Your task to perform on an android device: Open Google Chrome and open the bookmarks view Image 0: 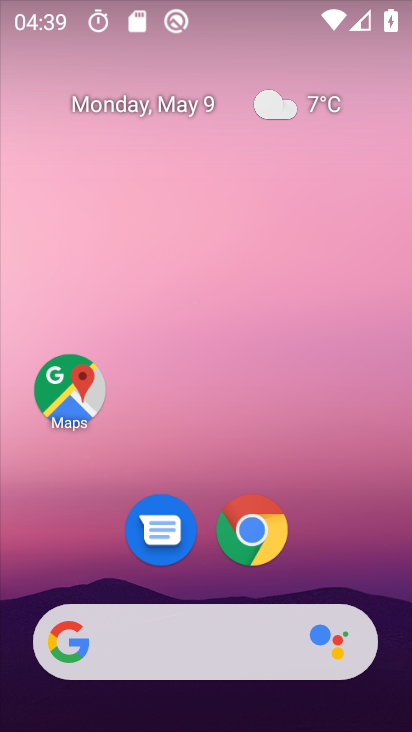
Step 0: drag from (186, 480) to (305, 33)
Your task to perform on an android device: Open Google Chrome and open the bookmarks view Image 1: 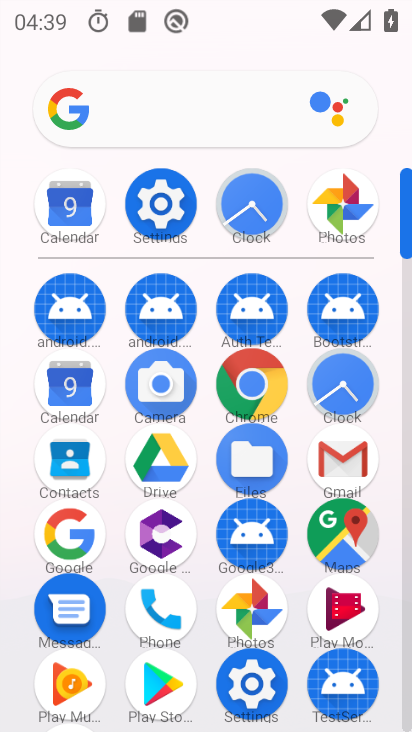
Step 1: click (254, 382)
Your task to perform on an android device: Open Google Chrome and open the bookmarks view Image 2: 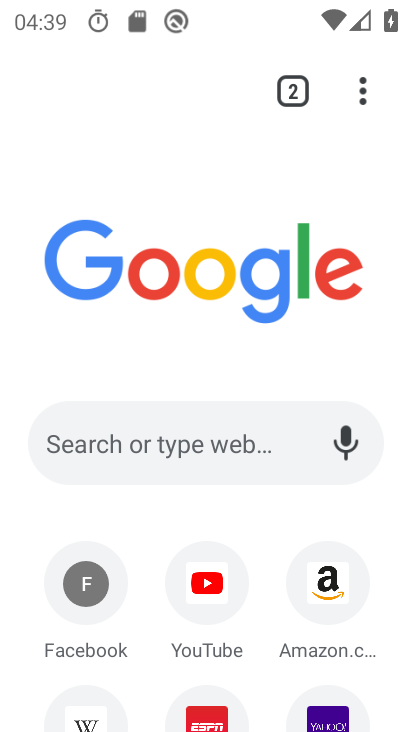
Step 2: task complete